Your task to perform on an android device: Open Wikipedia Image 0: 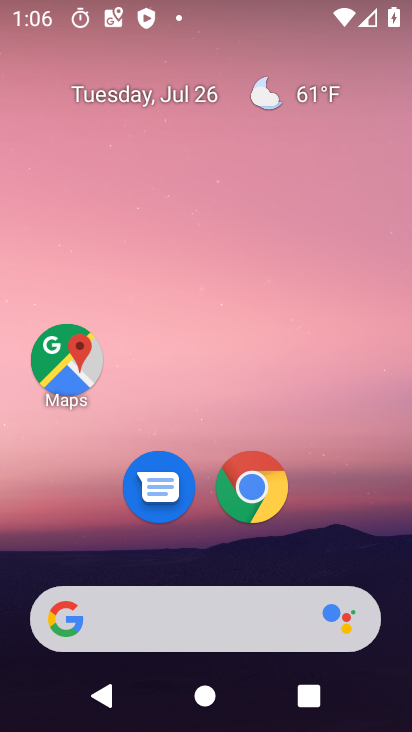
Step 0: click (261, 482)
Your task to perform on an android device: Open Wikipedia Image 1: 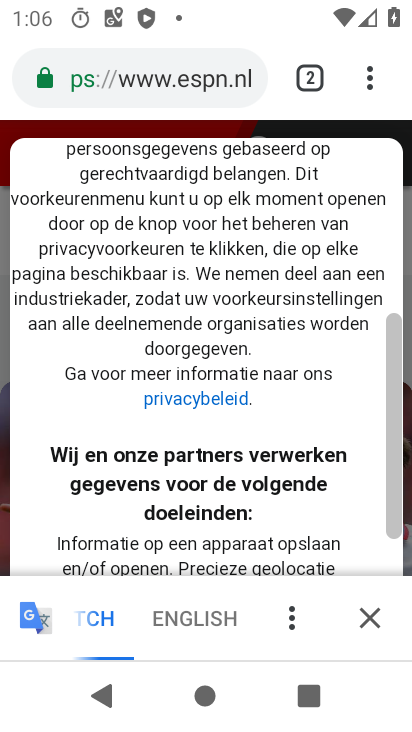
Step 1: click (299, 87)
Your task to perform on an android device: Open Wikipedia Image 2: 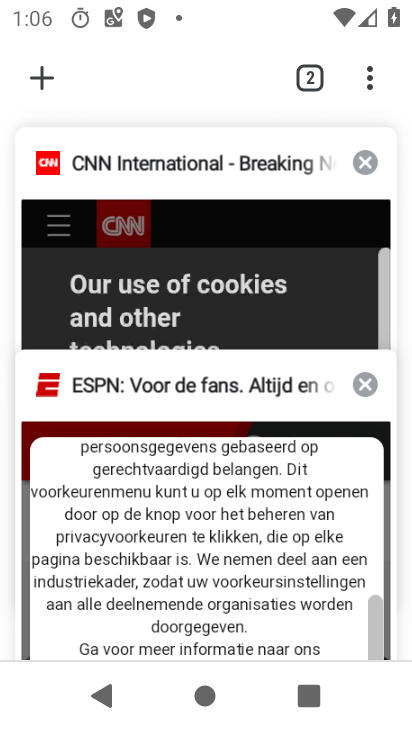
Step 2: click (42, 81)
Your task to perform on an android device: Open Wikipedia Image 3: 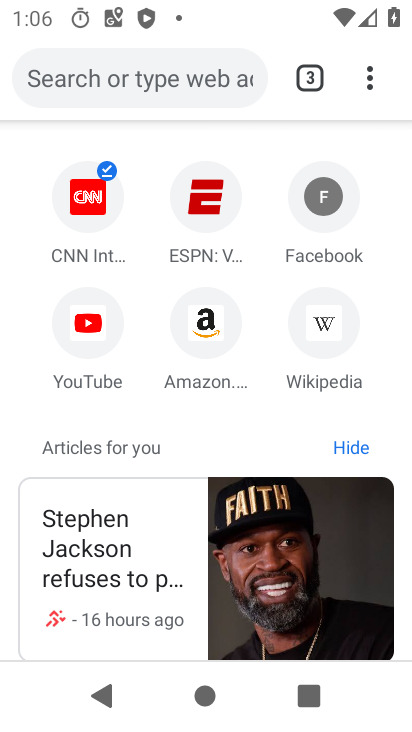
Step 3: click (320, 321)
Your task to perform on an android device: Open Wikipedia Image 4: 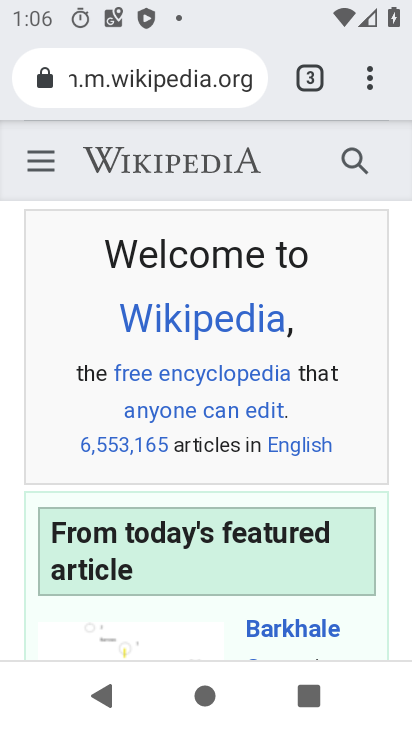
Step 4: task complete